Your task to perform on an android device: Open calendar and show me the third week of next month Image 0: 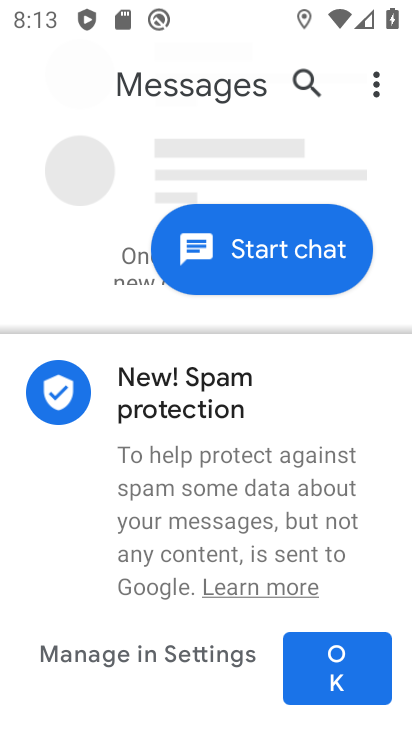
Step 0: press home button
Your task to perform on an android device: Open calendar and show me the third week of next month Image 1: 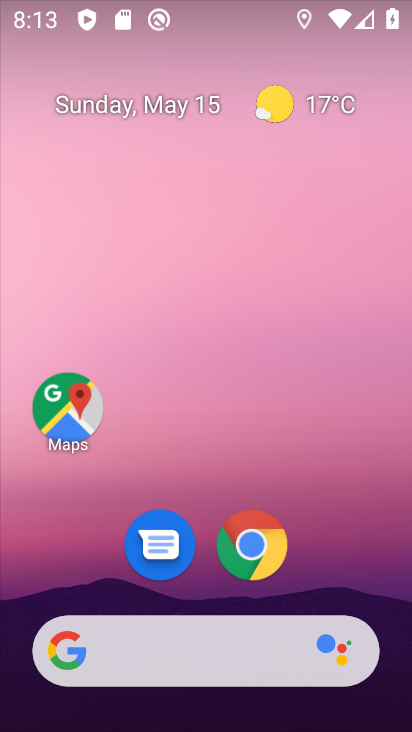
Step 1: drag from (318, 564) to (277, 300)
Your task to perform on an android device: Open calendar and show me the third week of next month Image 2: 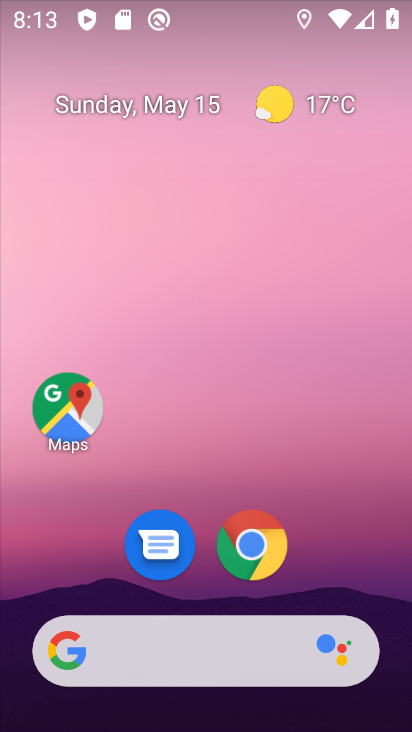
Step 2: drag from (327, 579) to (258, 230)
Your task to perform on an android device: Open calendar and show me the third week of next month Image 3: 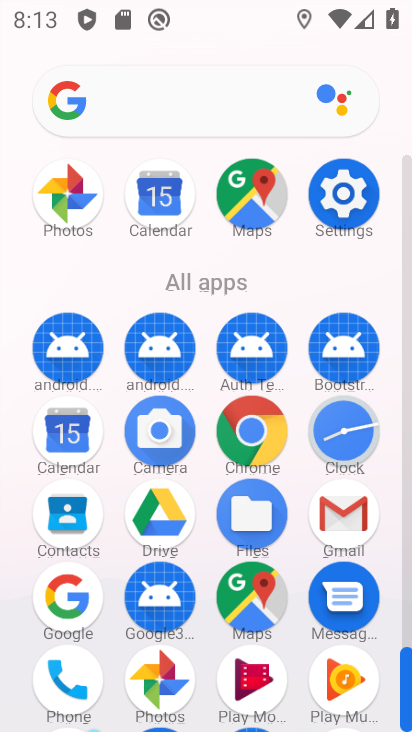
Step 3: click (57, 435)
Your task to perform on an android device: Open calendar and show me the third week of next month Image 4: 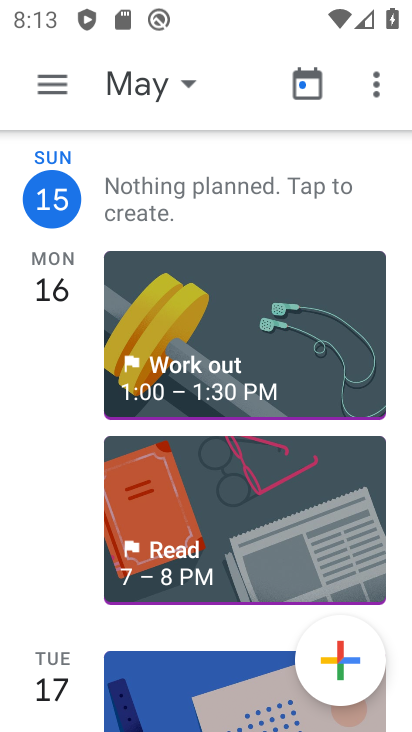
Step 4: click (122, 83)
Your task to perform on an android device: Open calendar and show me the third week of next month Image 5: 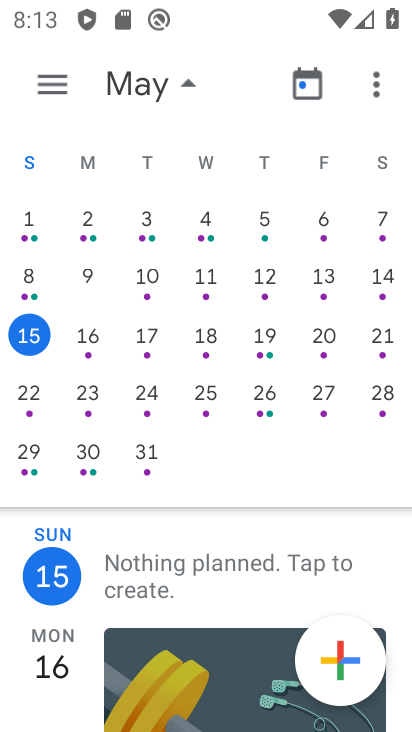
Step 5: click (57, 77)
Your task to perform on an android device: Open calendar and show me the third week of next month Image 6: 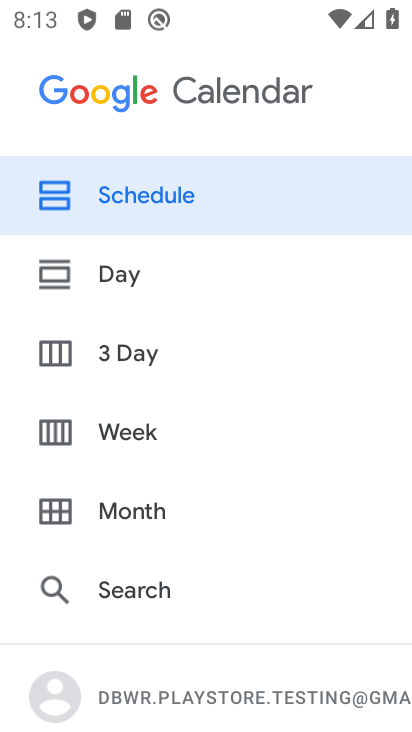
Step 6: click (138, 455)
Your task to perform on an android device: Open calendar and show me the third week of next month Image 7: 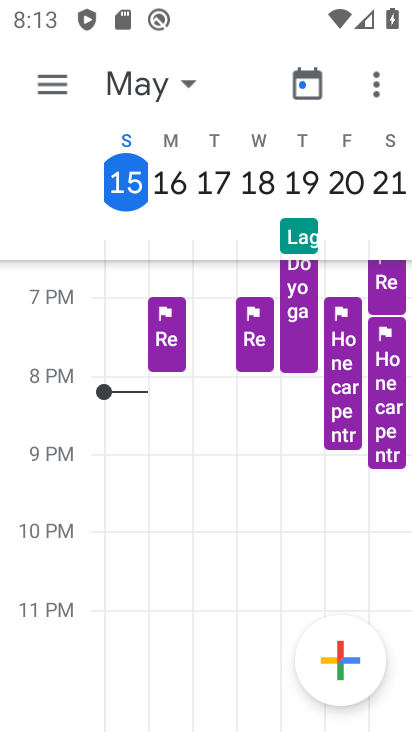
Step 7: click (137, 88)
Your task to perform on an android device: Open calendar and show me the third week of next month Image 8: 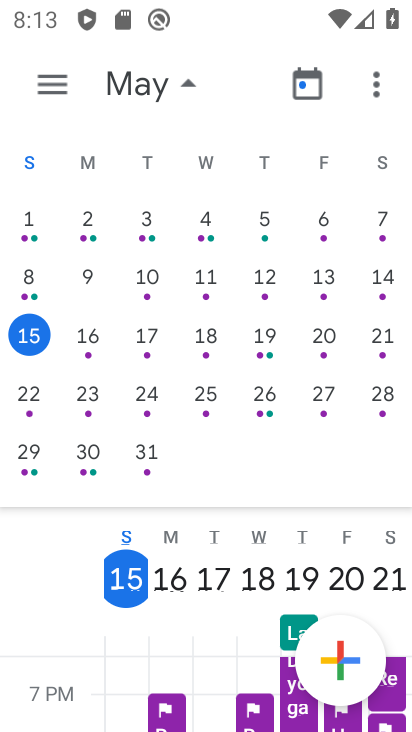
Step 8: drag from (363, 324) to (76, 333)
Your task to perform on an android device: Open calendar and show me the third week of next month Image 9: 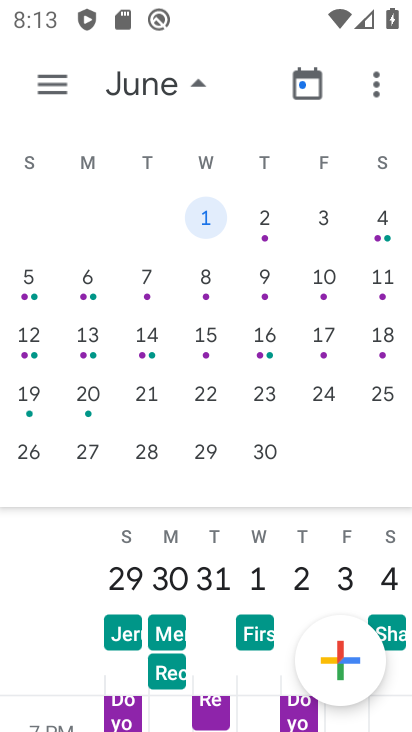
Step 9: click (30, 391)
Your task to perform on an android device: Open calendar and show me the third week of next month Image 10: 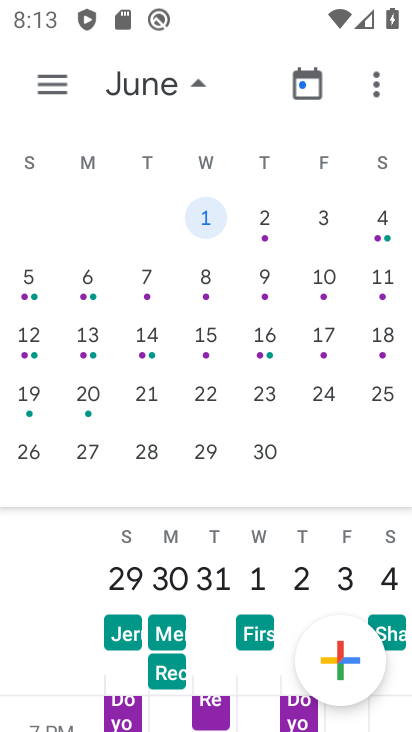
Step 10: click (30, 391)
Your task to perform on an android device: Open calendar and show me the third week of next month Image 11: 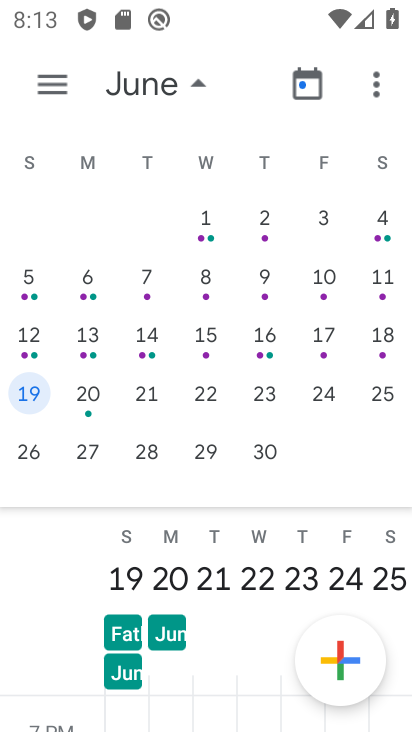
Step 11: drag from (235, 656) to (235, 422)
Your task to perform on an android device: Open calendar and show me the third week of next month Image 12: 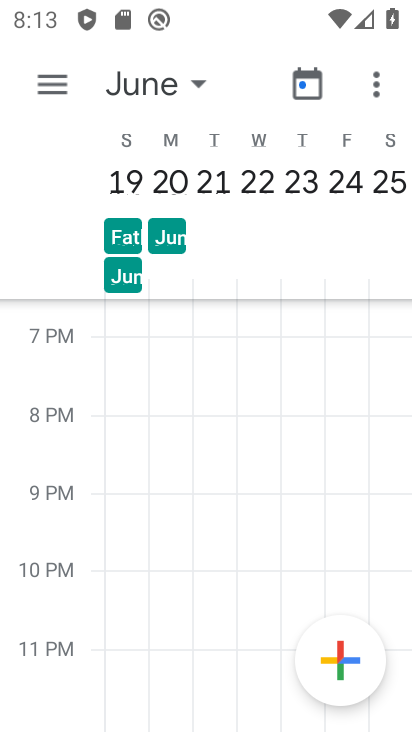
Step 12: drag from (236, 679) to (249, 465)
Your task to perform on an android device: Open calendar and show me the third week of next month Image 13: 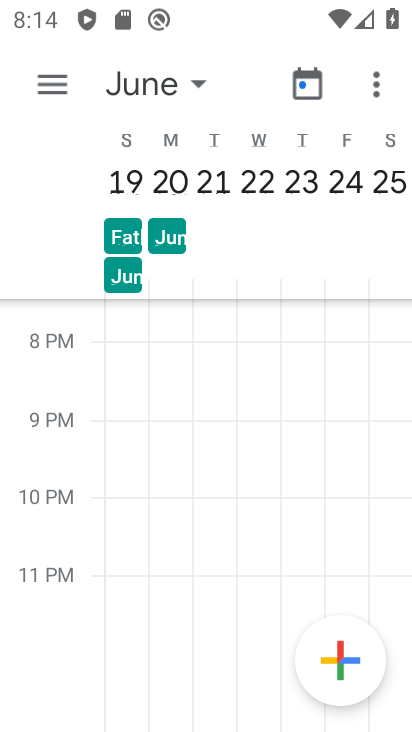
Step 13: drag from (276, 351) to (224, 634)
Your task to perform on an android device: Open calendar and show me the third week of next month Image 14: 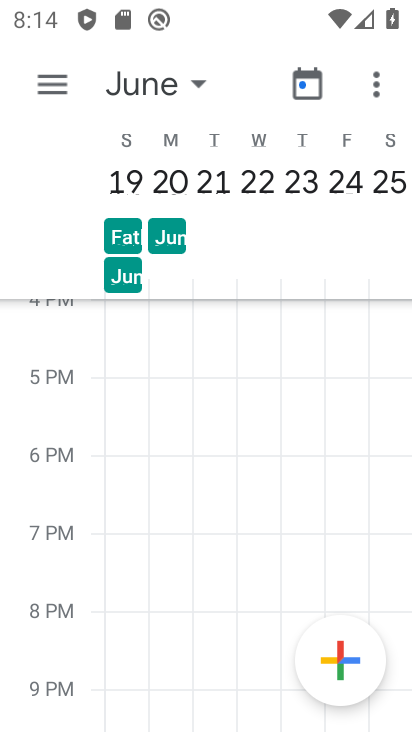
Step 14: drag from (302, 247) to (273, 429)
Your task to perform on an android device: Open calendar and show me the third week of next month Image 15: 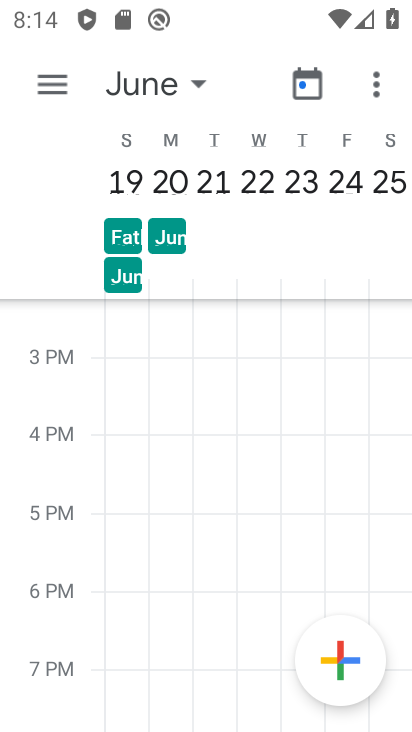
Step 15: click (243, 233)
Your task to perform on an android device: Open calendar and show me the third week of next month Image 16: 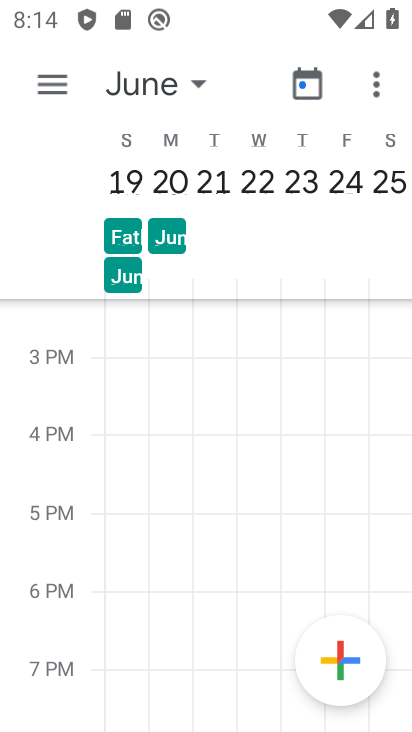
Step 16: click (151, 76)
Your task to perform on an android device: Open calendar and show me the third week of next month Image 17: 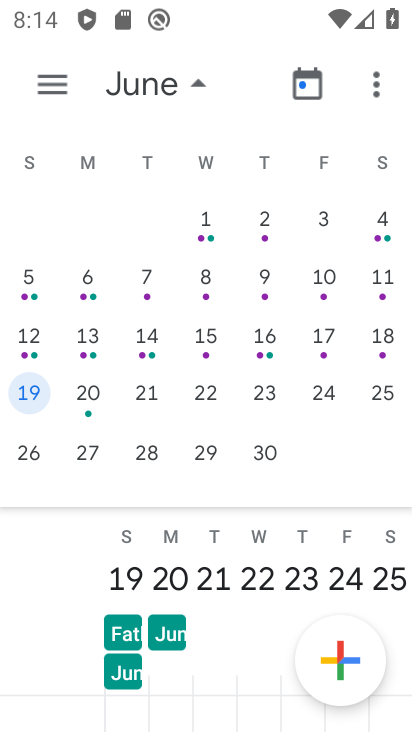
Step 17: click (25, 344)
Your task to perform on an android device: Open calendar and show me the third week of next month Image 18: 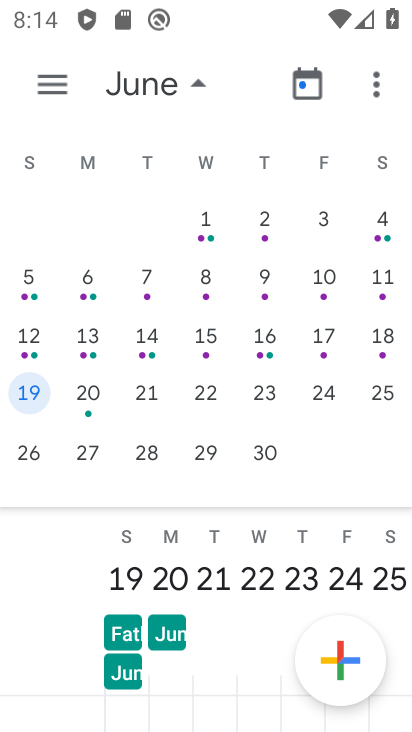
Step 18: click (28, 348)
Your task to perform on an android device: Open calendar and show me the third week of next month Image 19: 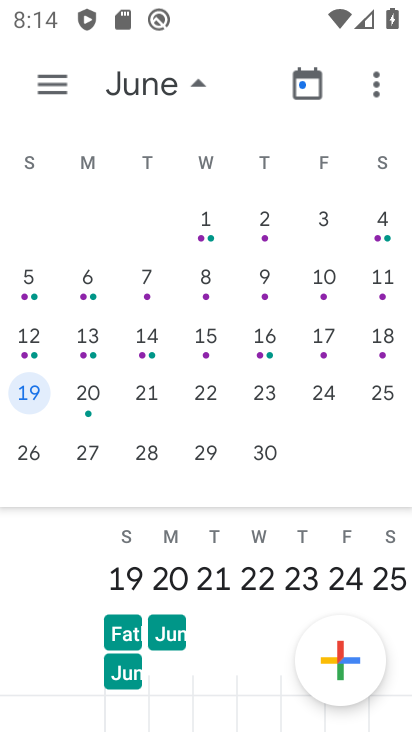
Step 19: click (30, 340)
Your task to perform on an android device: Open calendar and show me the third week of next month Image 20: 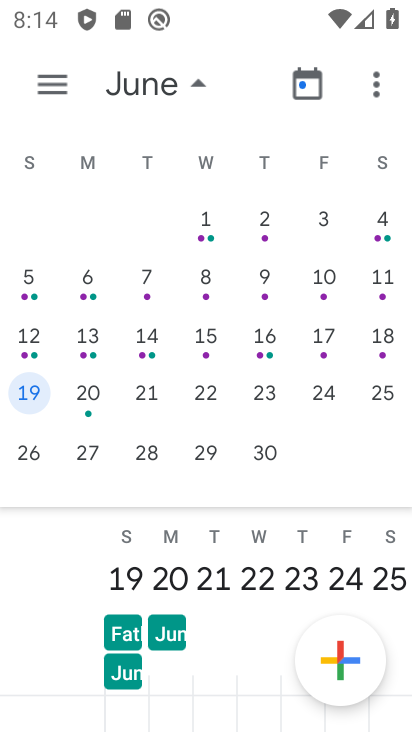
Step 20: click (34, 349)
Your task to perform on an android device: Open calendar and show me the third week of next month Image 21: 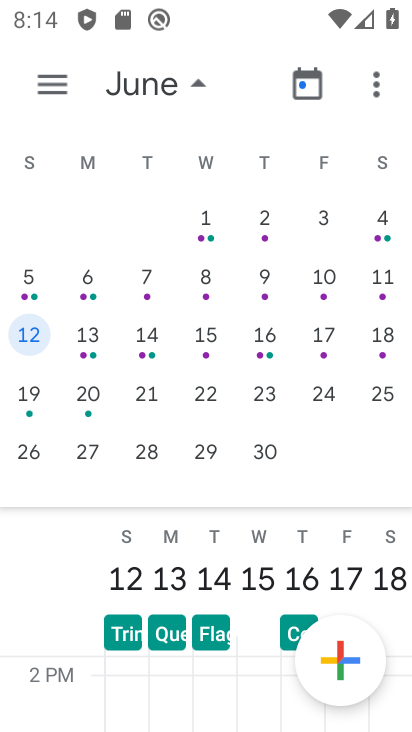
Step 21: task complete